Your task to perform on an android device: turn off javascript in the chrome app Image 0: 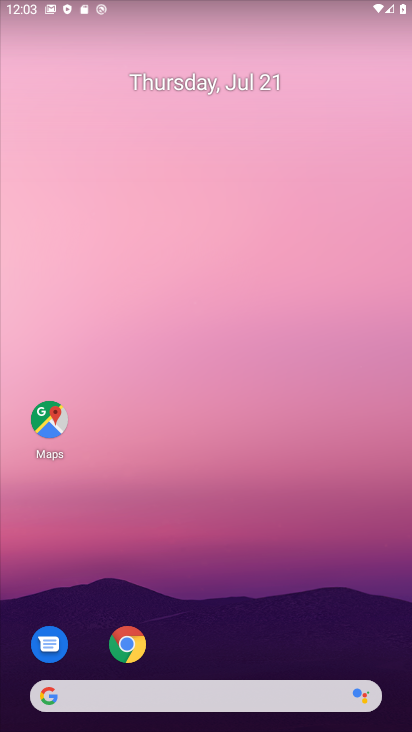
Step 0: drag from (210, 665) to (149, 30)
Your task to perform on an android device: turn off javascript in the chrome app Image 1: 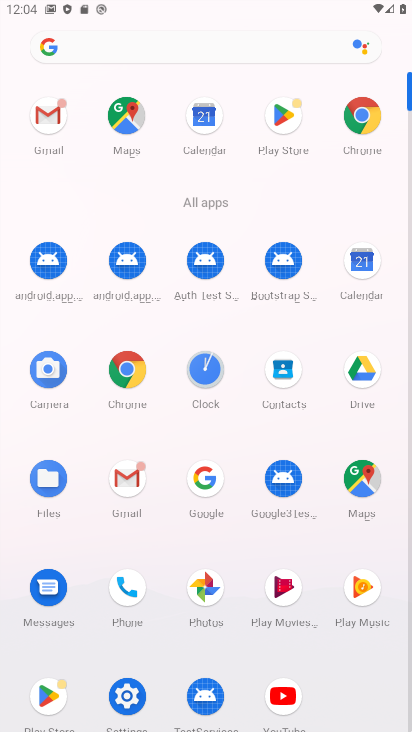
Step 1: click (344, 93)
Your task to perform on an android device: turn off javascript in the chrome app Image 2: 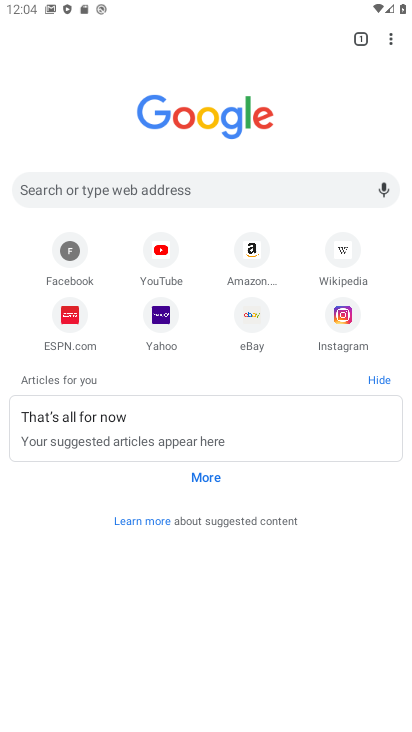
Step 2: click (393, 25)
Your task to perform on an android device: turn off javascript in the chrome app Image 3: 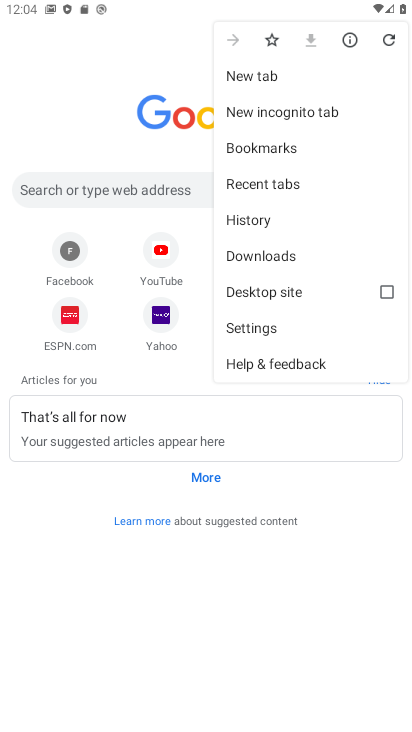
Step 3: click (259, 328)
Your task to perform on an android device: turn off javascript in the chrome app Image 4: 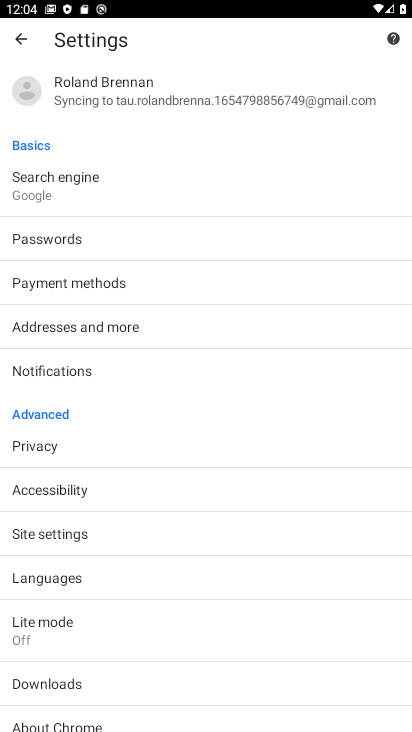
Step 4: click (82, 542)
Your task to perform on an android device: turn off javascript in the chrome app Image 5: 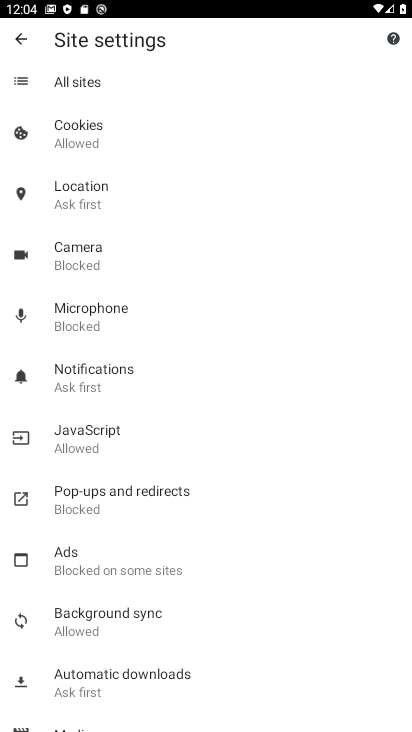
Step 5: click (84, 445)
Your task to perform on an android device: turn off javascript in the chrome app Image 6: 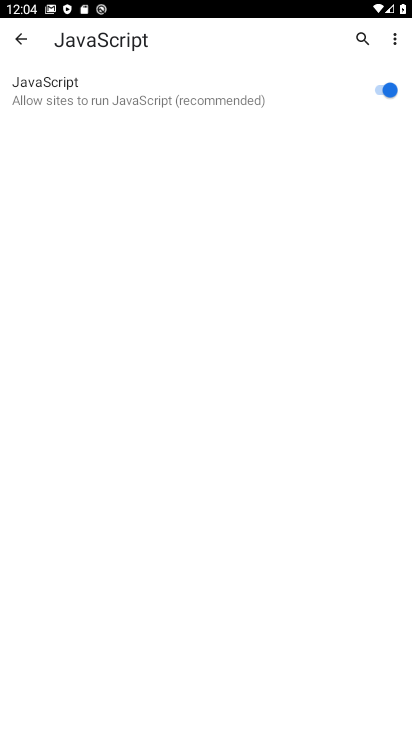
Step 6: click (379, 81)
Your task to perform on an android device: turn off javascript in the chrome app Image 7: 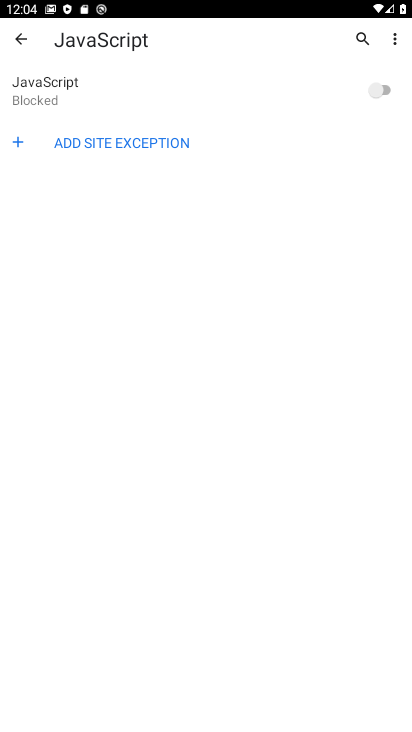
Step 7: task complete